Your task to perform on an android device: toggle location history Image 0: 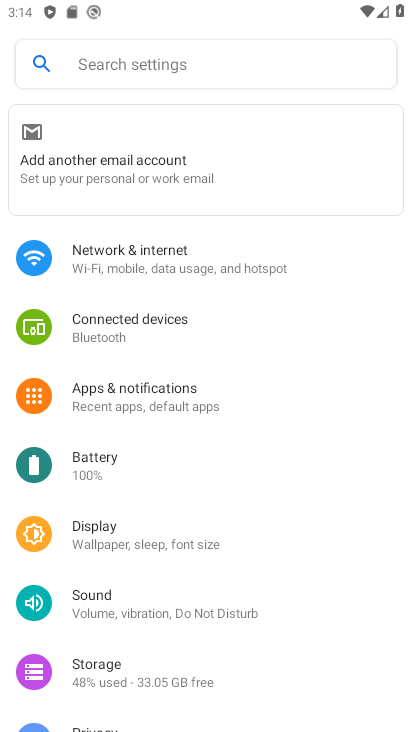
Step 0: drag from (254, 583) to (237, 275)
Your task to perform on an android device: toggle location history Image 1: 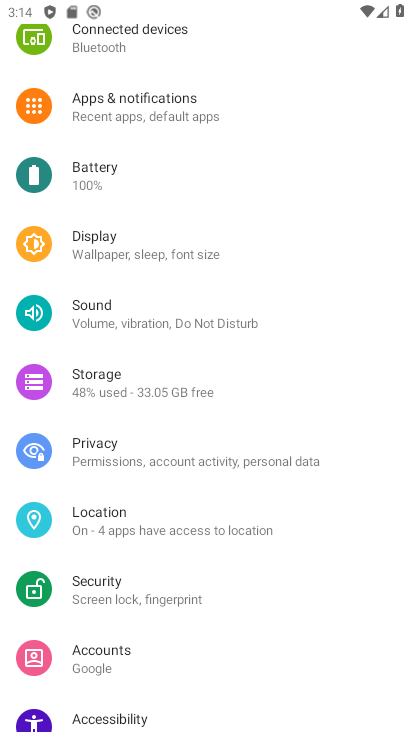
Step 1: click (137, 524)
Your task to perform on an android device: toggle location history Image 2: 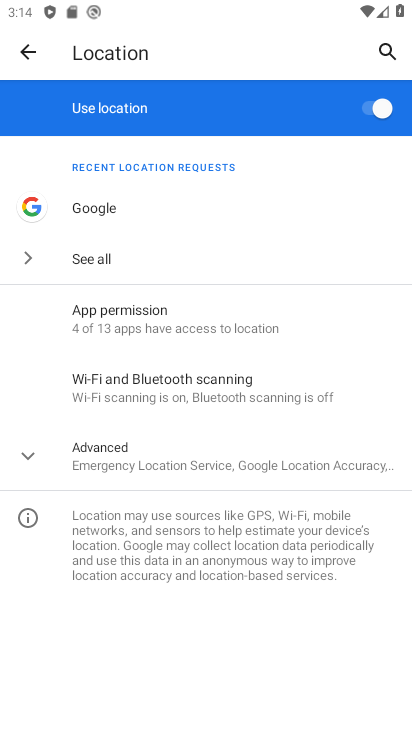
Step 2: click (152, 442)
Your task to perform on an android device: toggle location history Image 3: 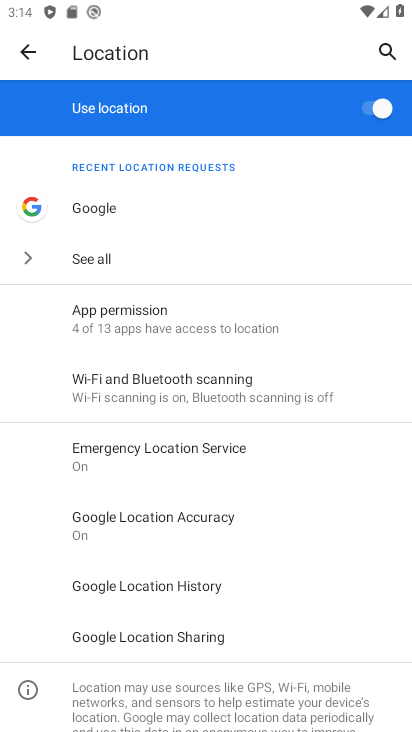
Step 3: click (178, 577)
Your task to perform on an android device: toggle location history Image 4: 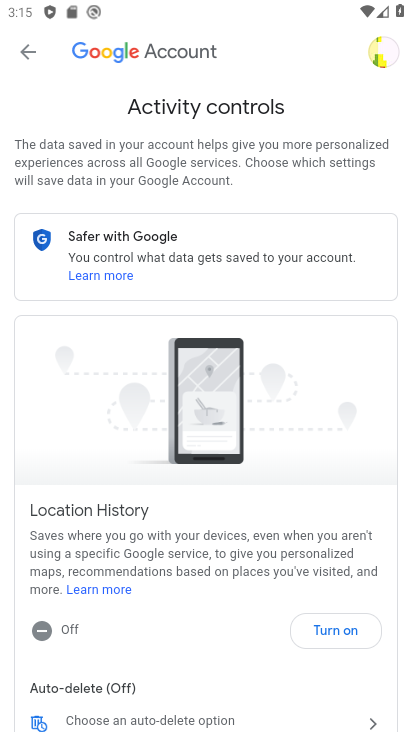
Step 4: click (337, 628)
Your task to perform on an android device: toggle location history Image 5: 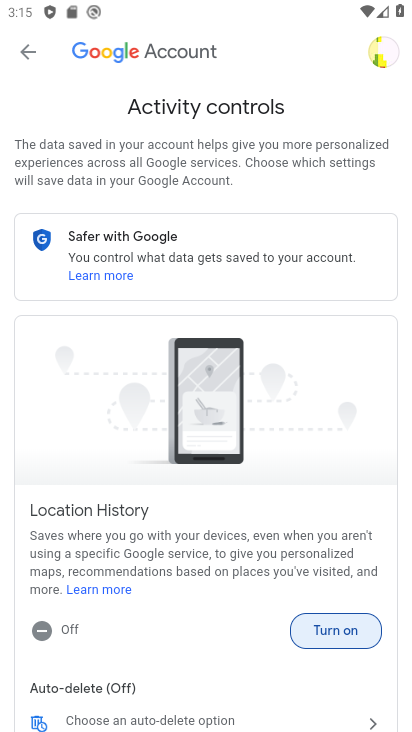
Step 5: click (323, 634)
Your task to perform on an android device: toggle location history Image 6: 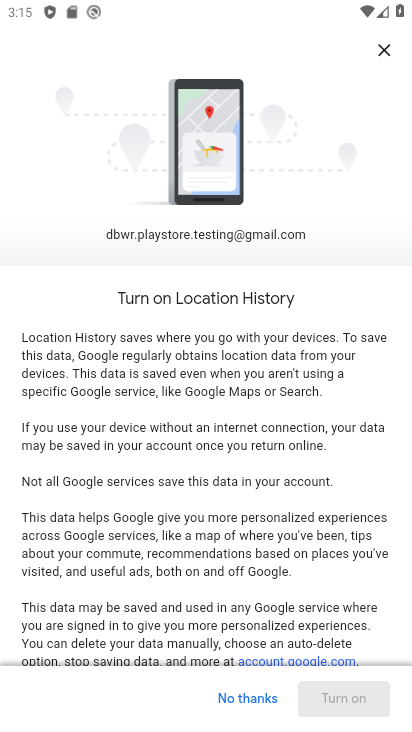
Step 6: drag from (277, 596) to (272, 65)
Your task to perform on an android device: toggle location history Image 7: 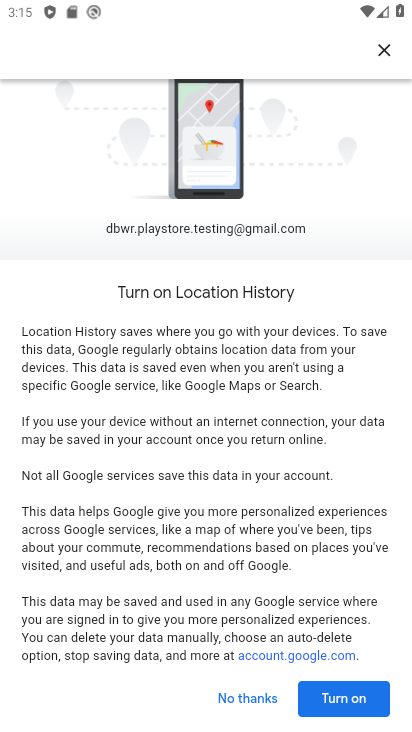
Step 7: click (346, 696)
Your task to perform on an android device: toggle location history Image 8: 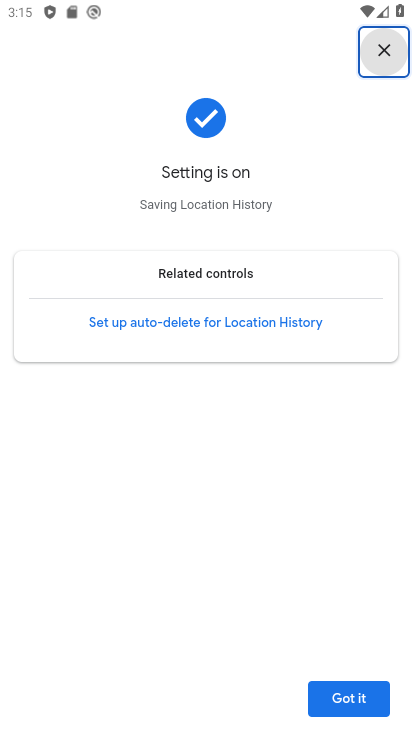
Step 8: click (348, 689)
Your task to perform on an android device: toggle location history Image 9: 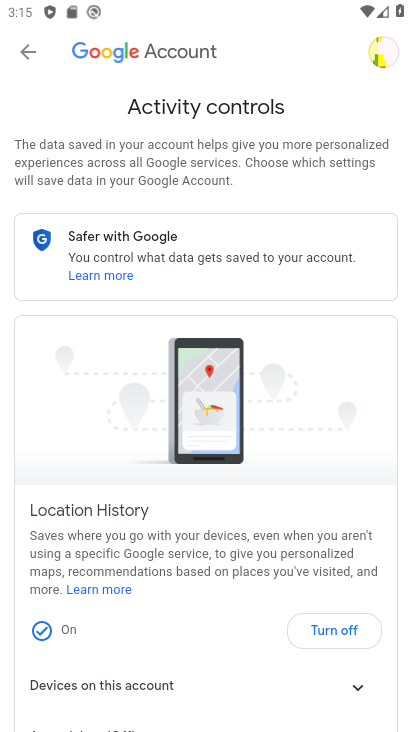
Step 9: task complete